Your task to perform on an android device: turn off location Image 0: 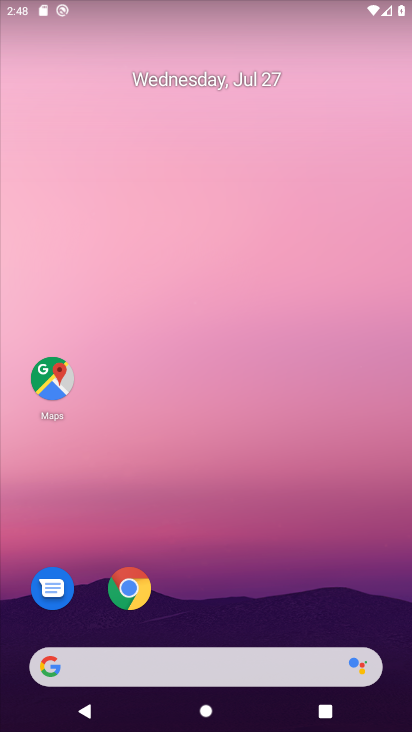
Step 0: drag from (218, 607) to (172, 212)
Your task to perform on an android device: turn off location Image 1: 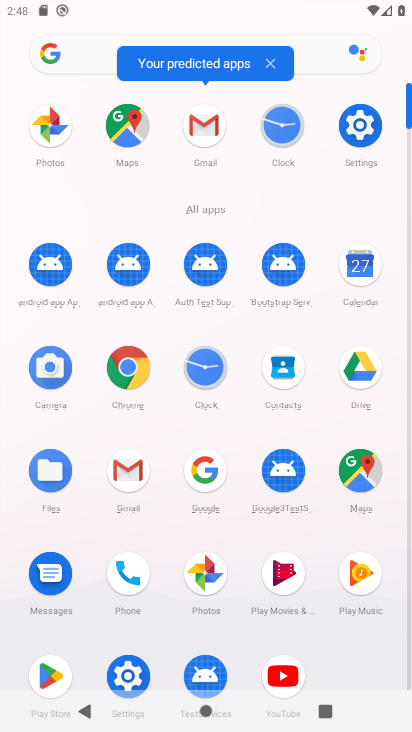
Step 1: click (130, 670)
Your task to perform on an android device: turn off location Image 2: 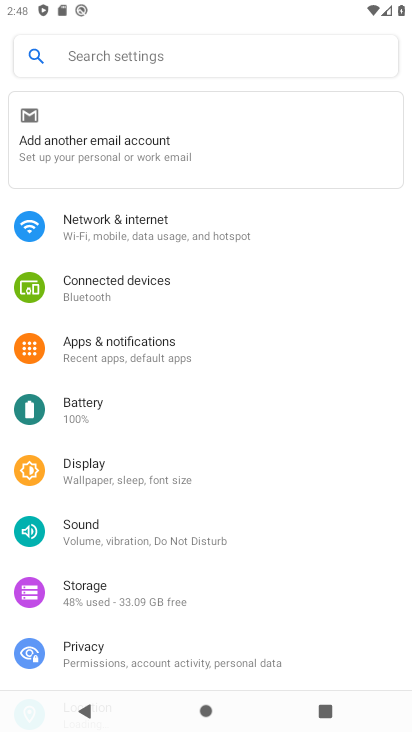
Step 2: drag from (77, 626) to (105, 255)
Your task to perform on an android device: turn off location Image 3: 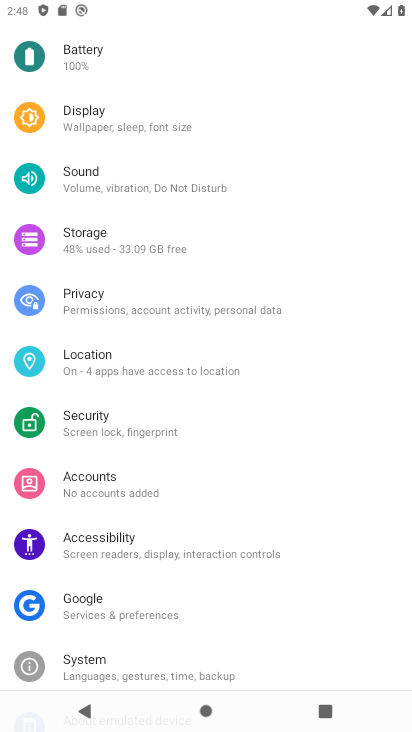
Step 3: click (57, 353)
Your task to perform on an android device: turn off location Image 4: 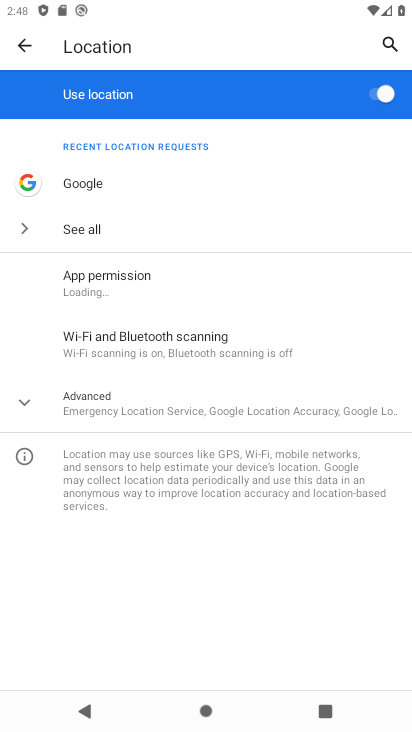
Step 4: click (374, 88)
Your task to perform on an android device: turn off location Image 5: 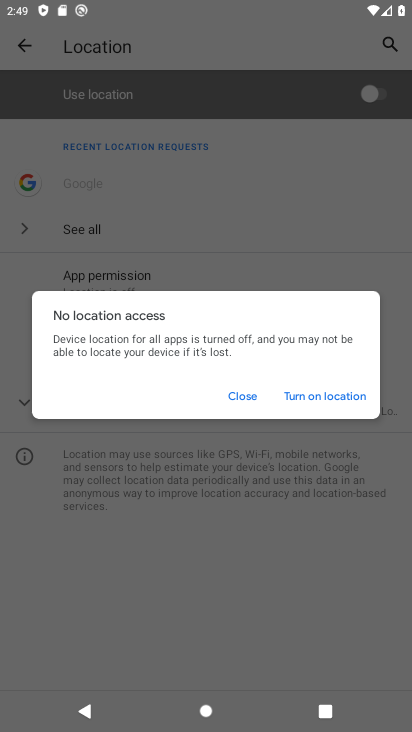
Step 5: click (243, 398)
Your task to perform on an android device: turn off location Image 6: 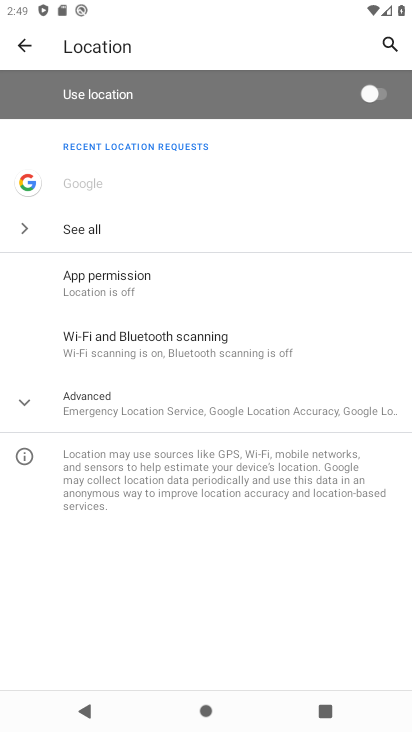
Step 6: task complete